Your task to perform on an android device: set the stopwatch Image 0: 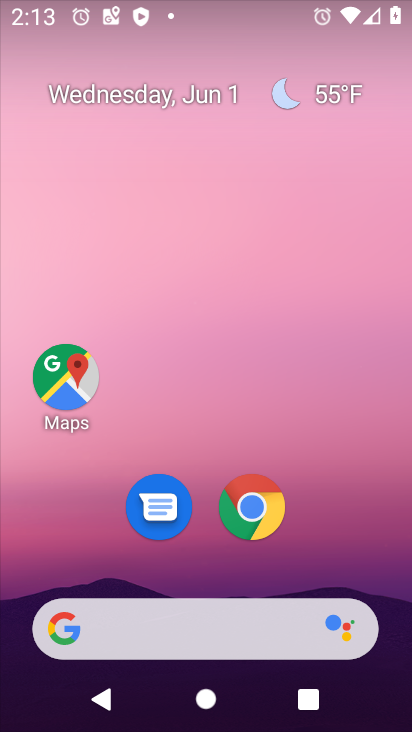
Step 0: drag from (342, 571) to (308, 2)
Your task to perform on an android device: set the stopwatch Image 1: 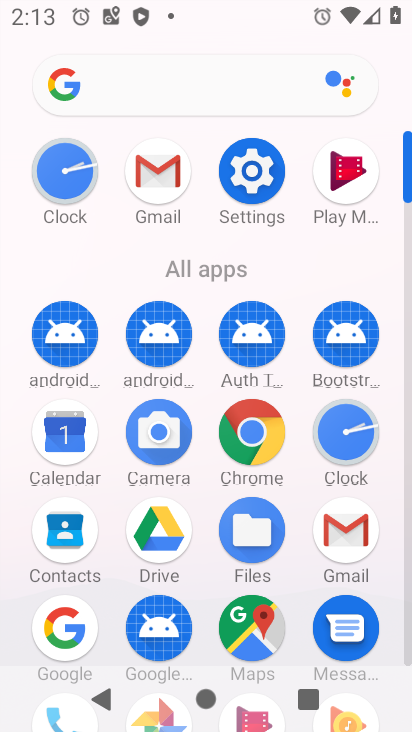
Step 1: click (45, 187)
Your task to perform on an android device: set the stopwatch Image 2: 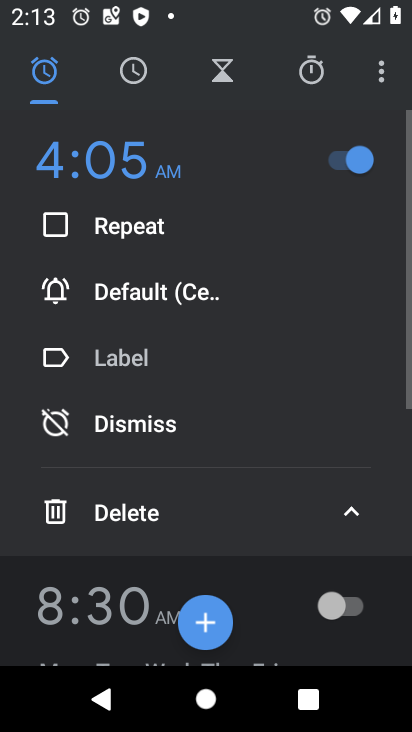
Step 2: click (311, 77)
Your task to perform on an android device: set the stopwatch Image 3: 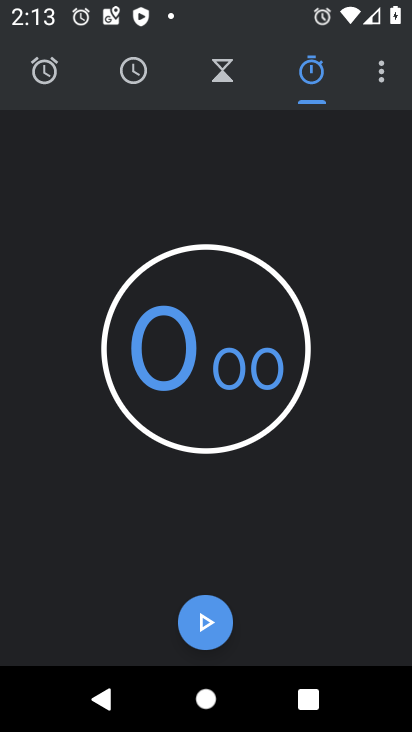
Step 3: click (207, 624)
Your task to perform on an android device: set the stopwatch Image 4: 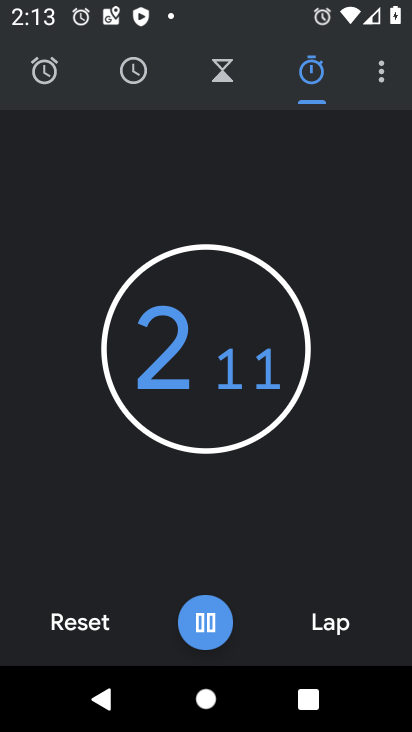
Step 4: click (207, 624)
Your task to perform on an android device: set the stopwatch Image 5: 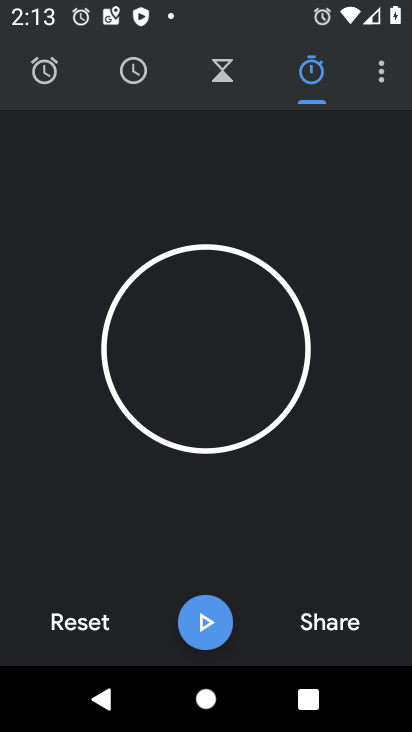
Step 5: task complete